Your task to perform on an android device: Go to Amazon Image 0: 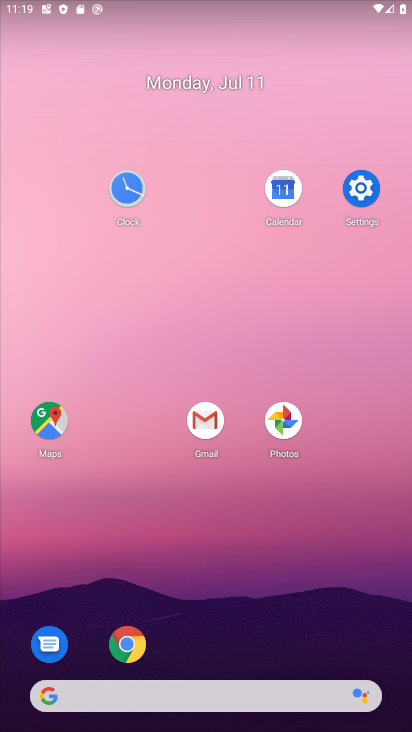
Step 0: click (130, 645)
Your task to perform on an android device: Go to Amazon Image 1: 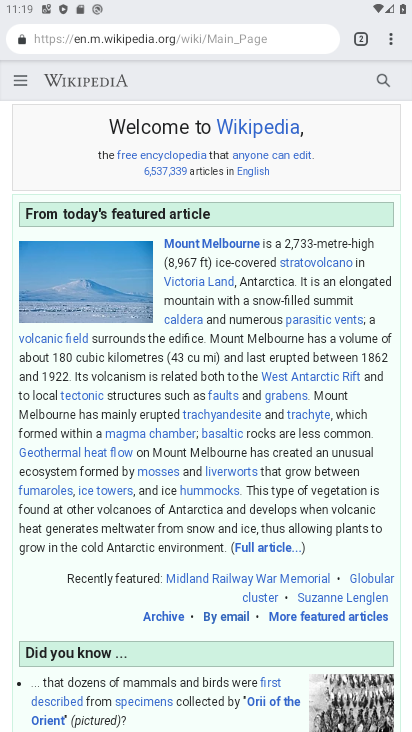
Step 1: click (352, 44)
Your task to perform on an android device: Go to Amazon Image 2: 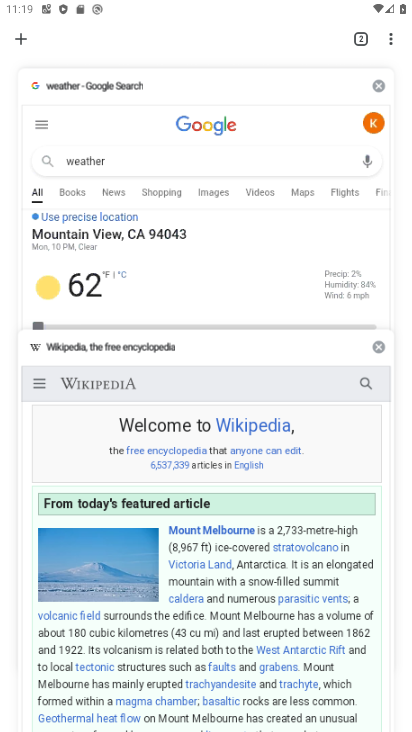
Step 2: click (22, 41)
Your task to perform on an android device: Go to Amazon Image 3: 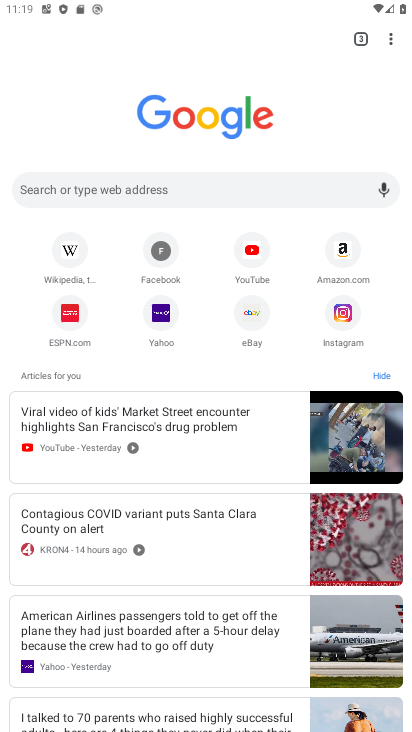
Step 3: click (329, 248)
Your task to perform on an android device: Go to Amazon Image 4: 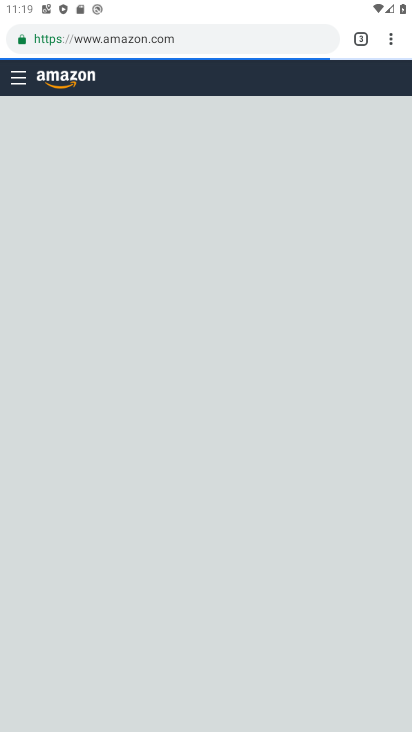
Step 4: task complete